Your task to perform on an android device: Add "energizer triple a" to the cart on amazon, then select checkout. Image 0: 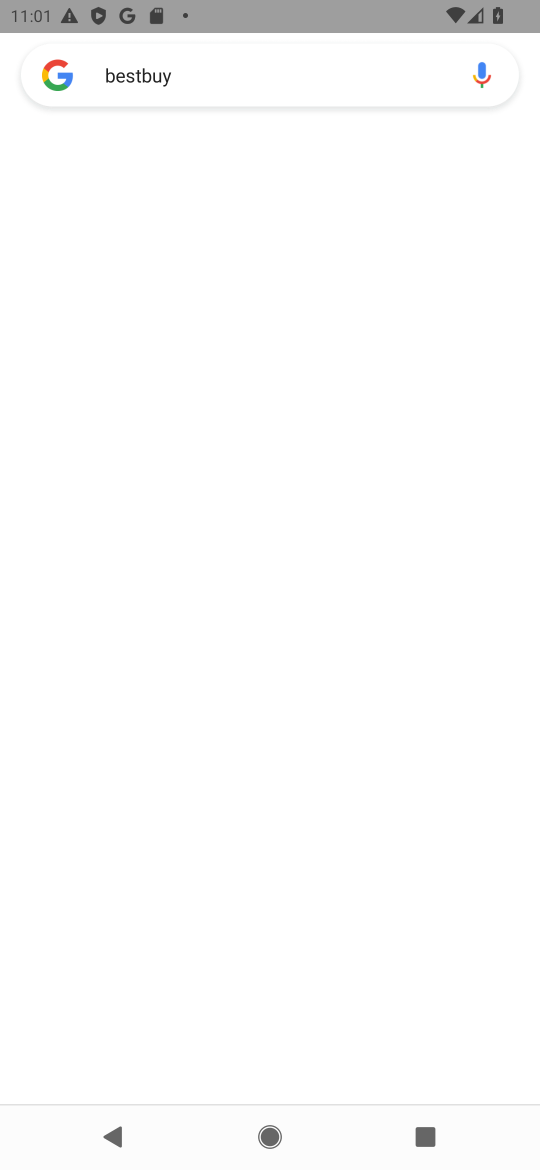
Step 0: press home button
Your task to perform on an android device: Add "energizer triple a" to the cart on amazon, then select checkout. Image 1: 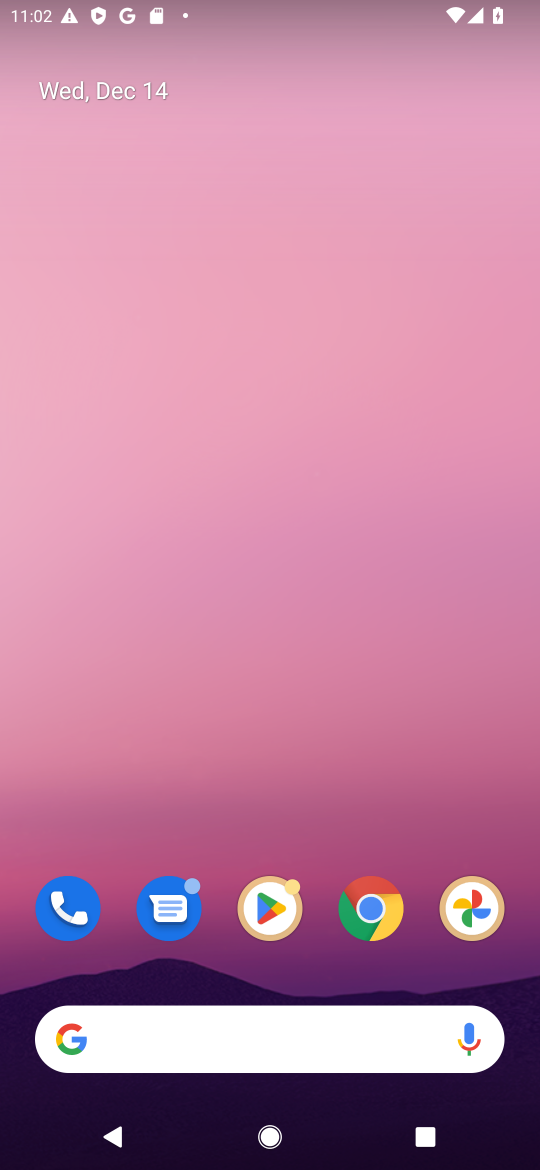
Step 1: click (398, 912)
Your task to perform on an android device: Add "energizer triple a" to the cart on amazon, then select checkout. Image 2: 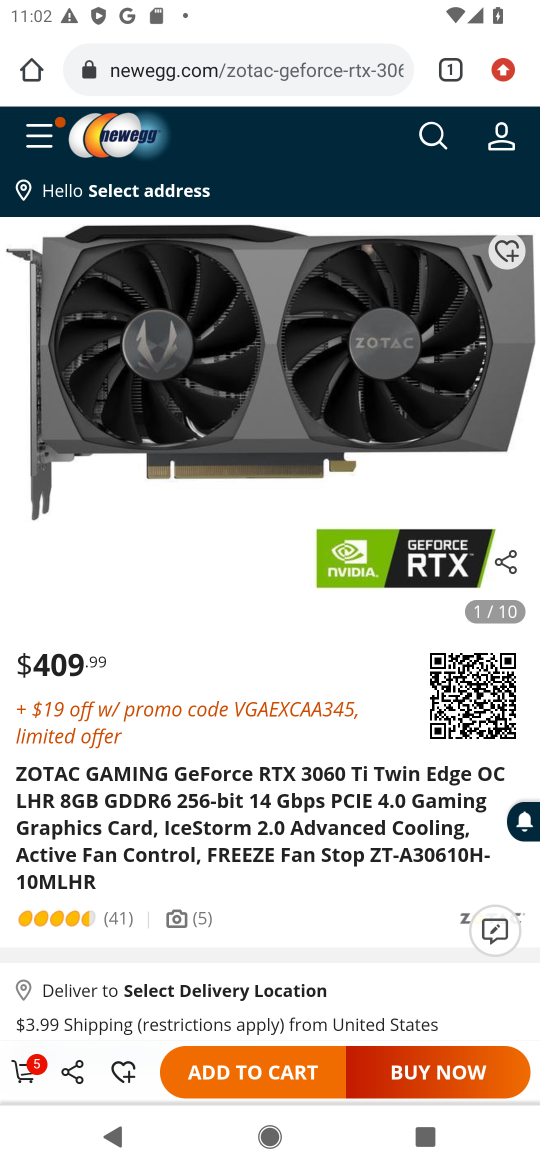
Step 2: click (307, 60)
Your task to perform on an android device: Add "energizer triple a" to the cart on amazon, then select checkout. Image 3: 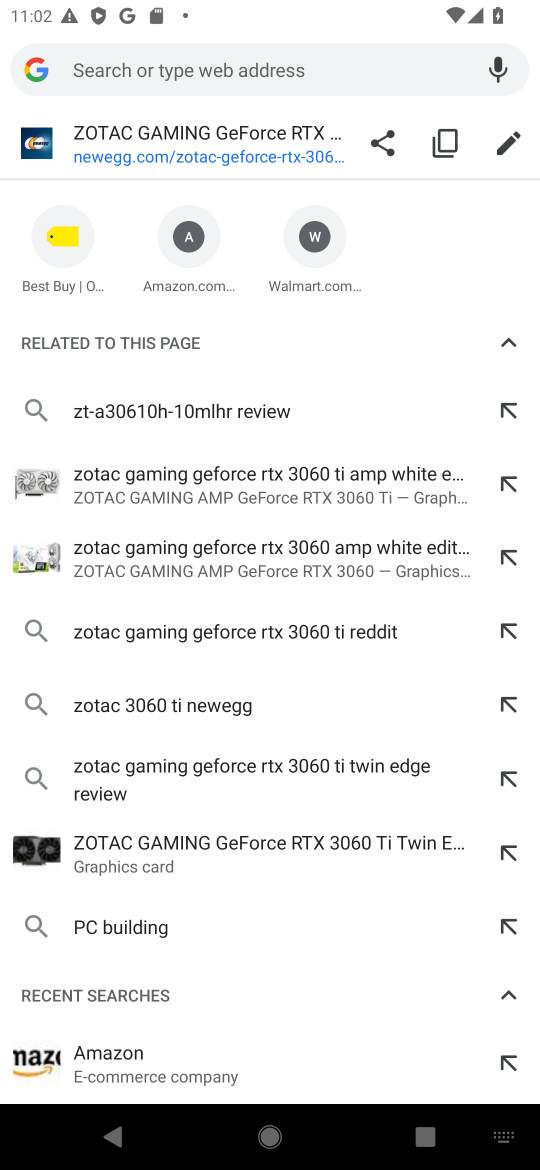
Step 3: type "amazone"
Your task to perform on an android device: Add "energizer triple a" to the cart on amazon, then select checkout. Image 4: 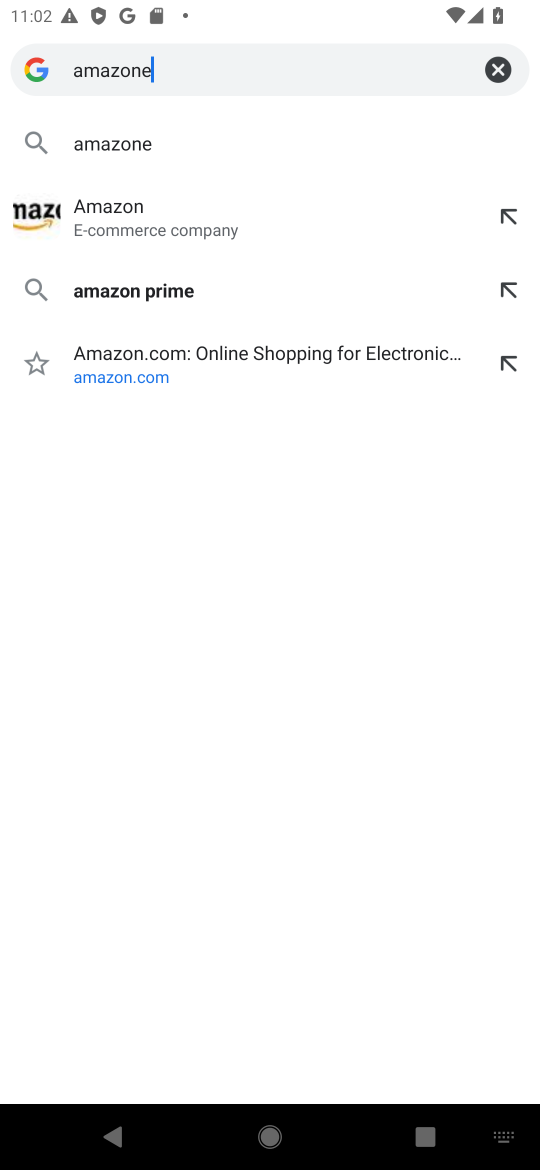
Step 4: click (103, 223)
Your task to perform on an android device: Add "energizer triple a" to the cart on amazon, then select checkout. Image 5: 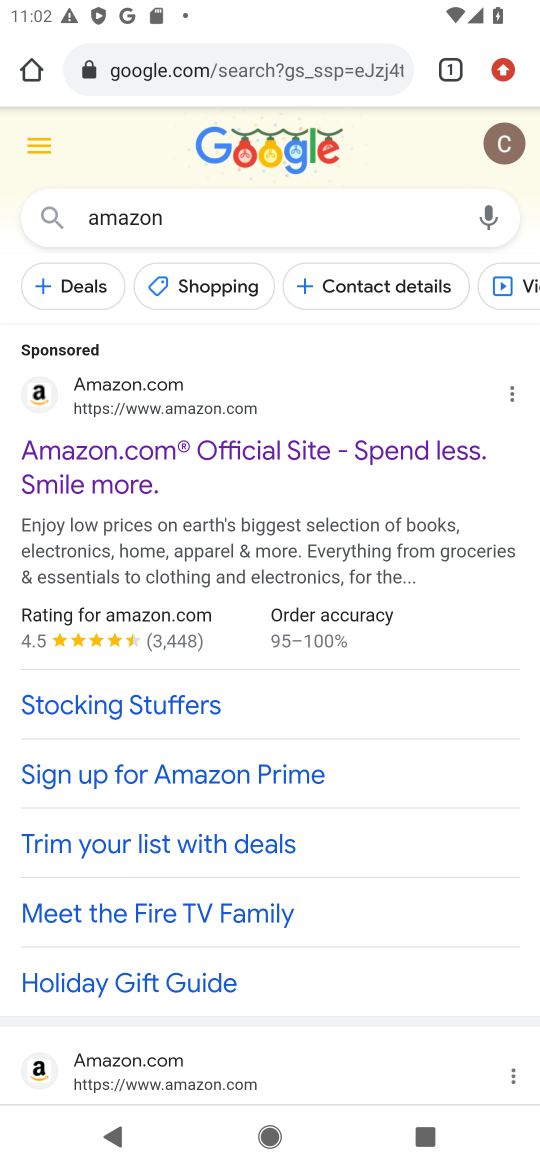
Step 5: click (55, 480)
Your task to perform on an android device: Add "energizer triple a" to the cart on amazon, then select checkout. Image 6: 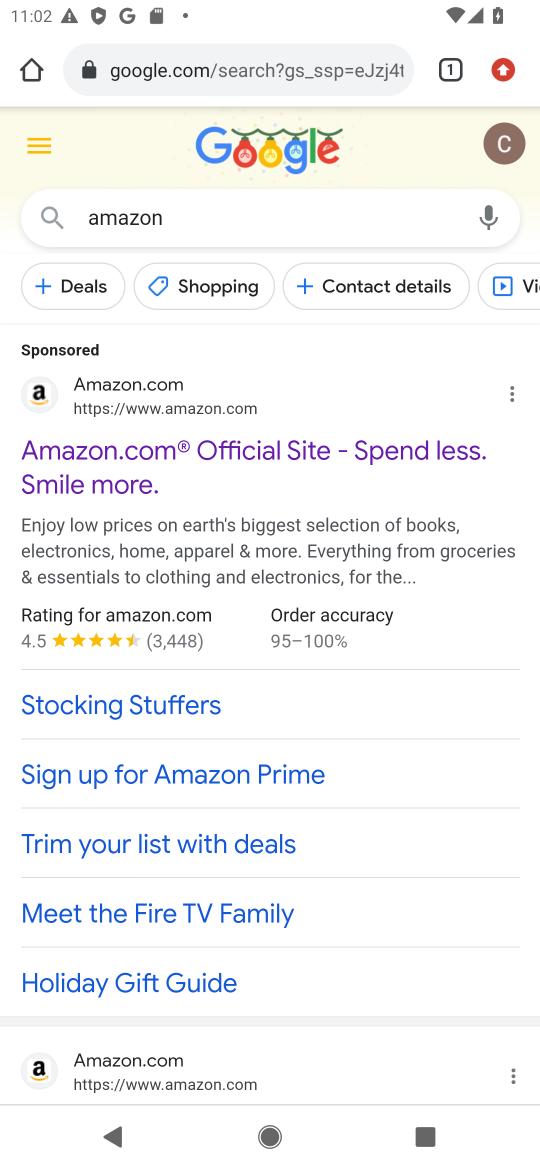
Step 6: click (55, 480)
Your task to perform on an android device: Add "energizer triple a" to the cart on amazon, then select checkout. Image 7: 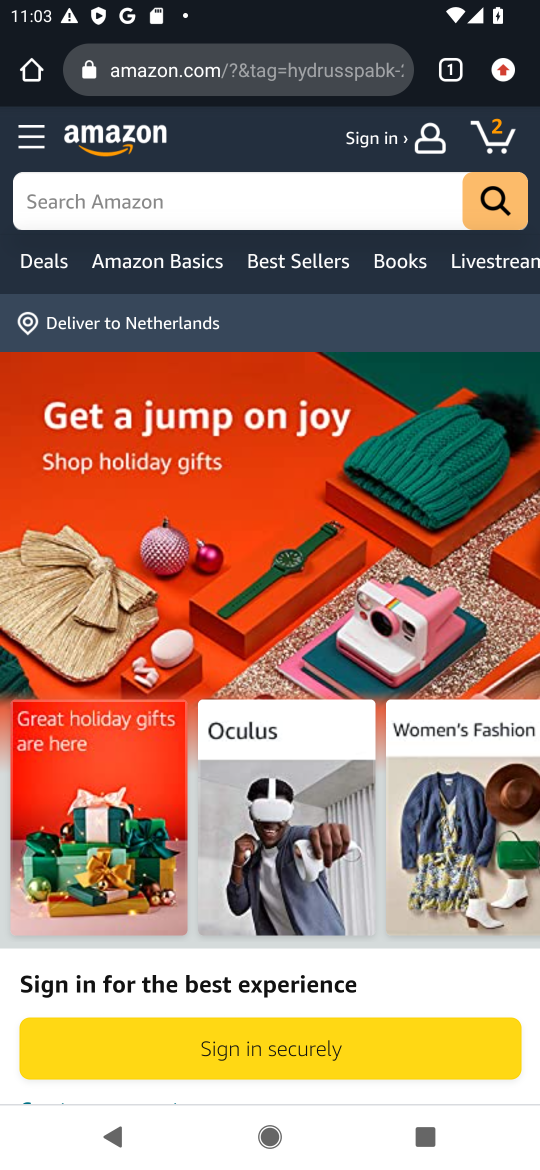
Step 7: click (204, 230)
Your task to perform on an android device: Add "energizer triple a" to the cart on amazon, then select checkout. Image 8: 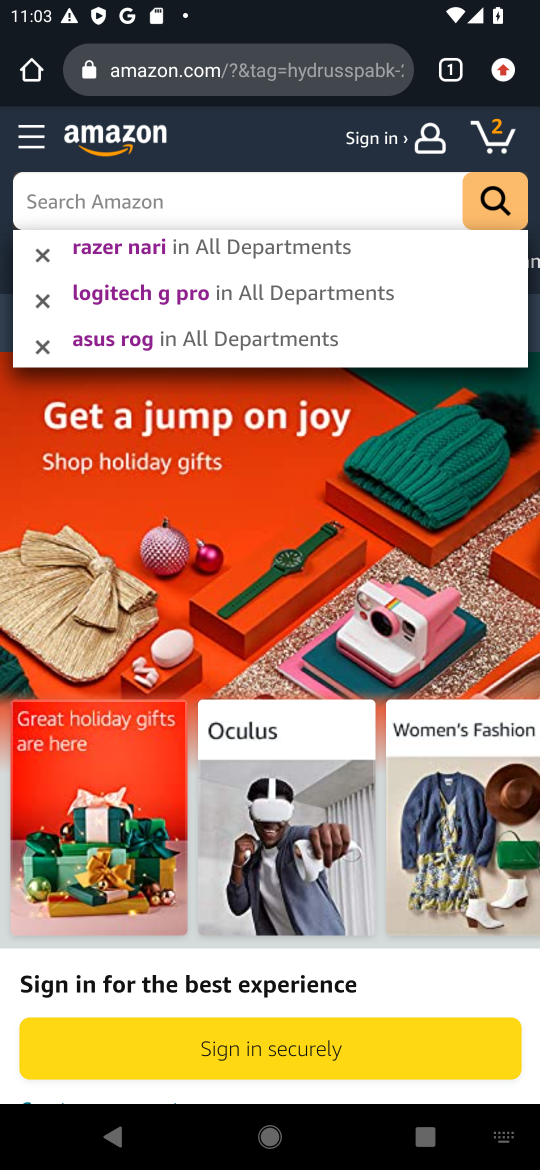
Step 8: click (206, 218)
Your task to perform on an android device: Add "energizer triple a" to the cart on amazon, then select checkout. Image 9: 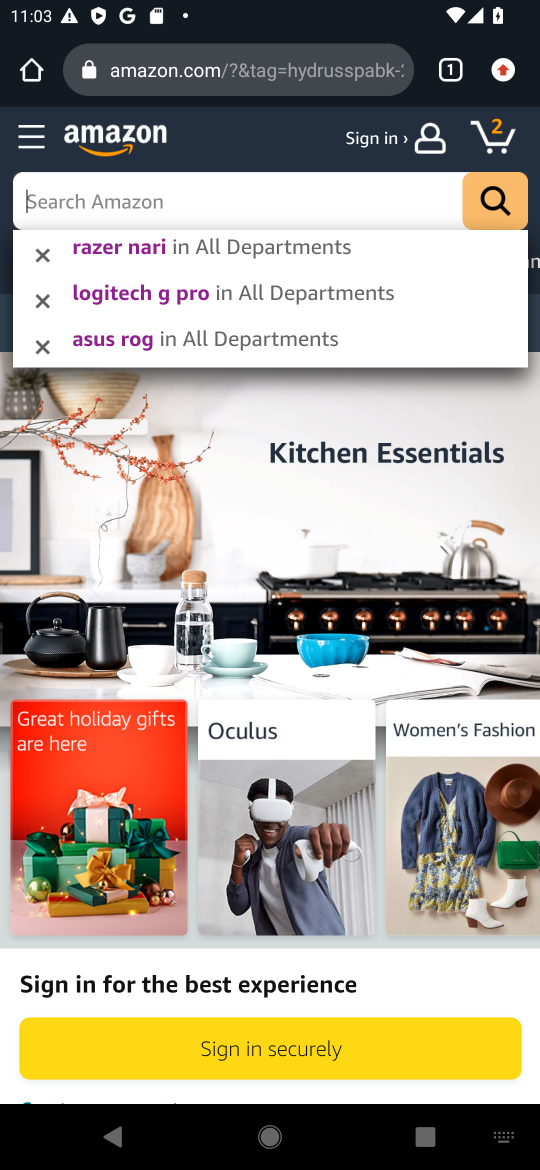
Step 9: type "energizer"
Your task to perform on an android device: Add "energizer triple a" to the cart on amazon, then select checkout. Image 10: 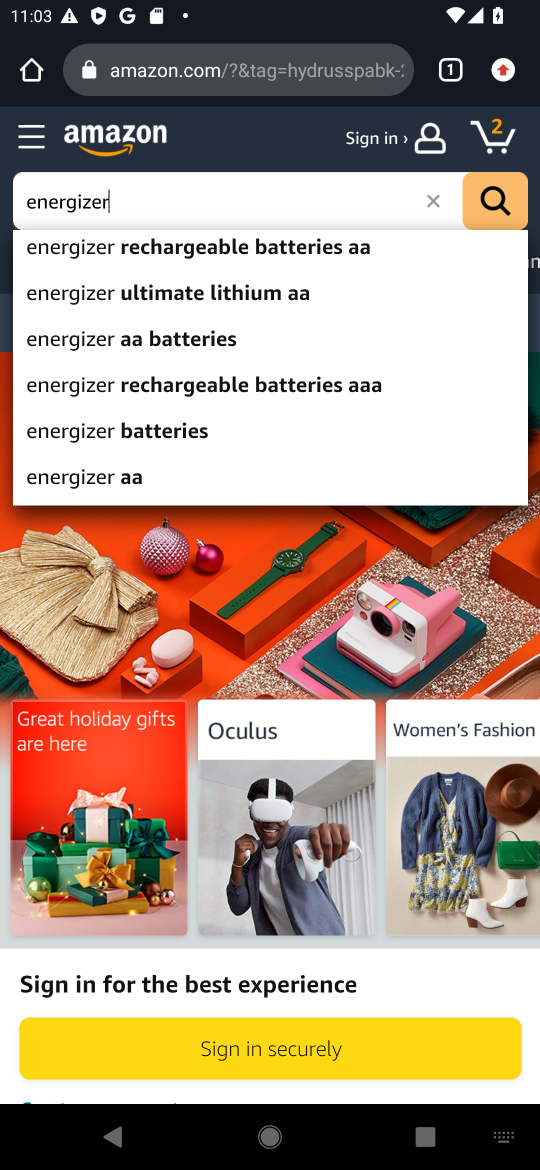
Step 10: type " triple a"
Your task to perform on an android device: Add "energizer triple a" to the cart on amazon, then select checkout. Image 11: 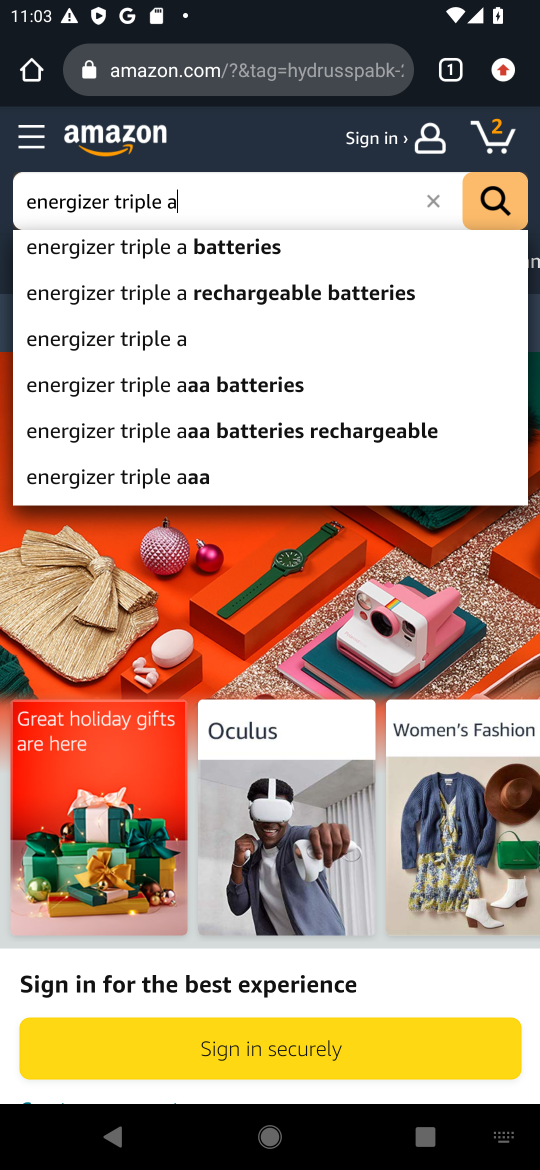
Step 11: click (266, 257)
Your task to perform on an android device: Add "energizer triple a" to the cart on amazon, then select checkout. Image 12: 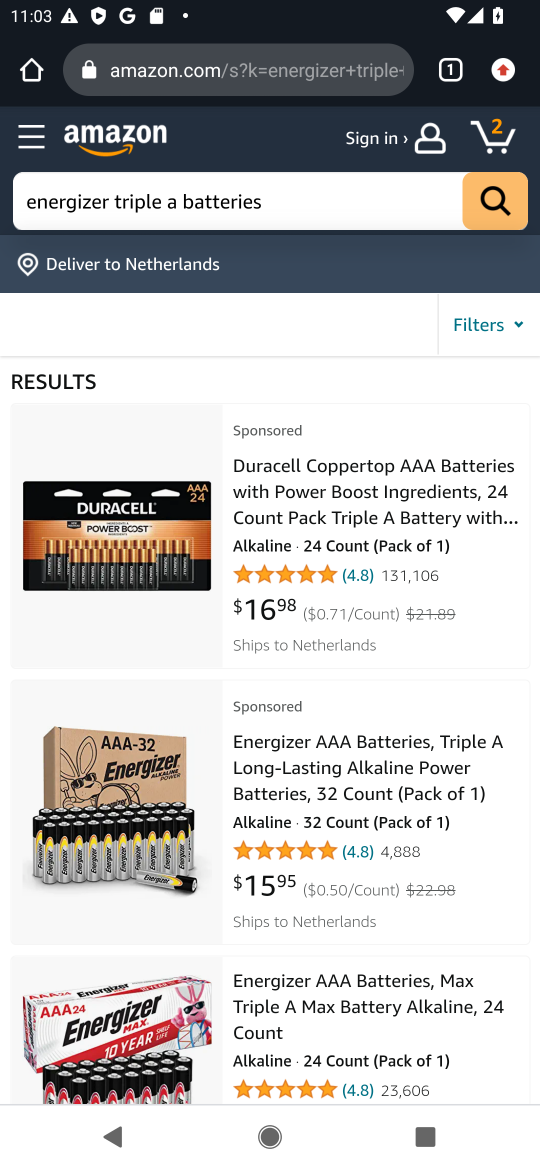
Step 12: click (278, 476)
Your task to perform on an android device: Add "energizer triple a" to the cart on amazon, then select checkout. Image 13: 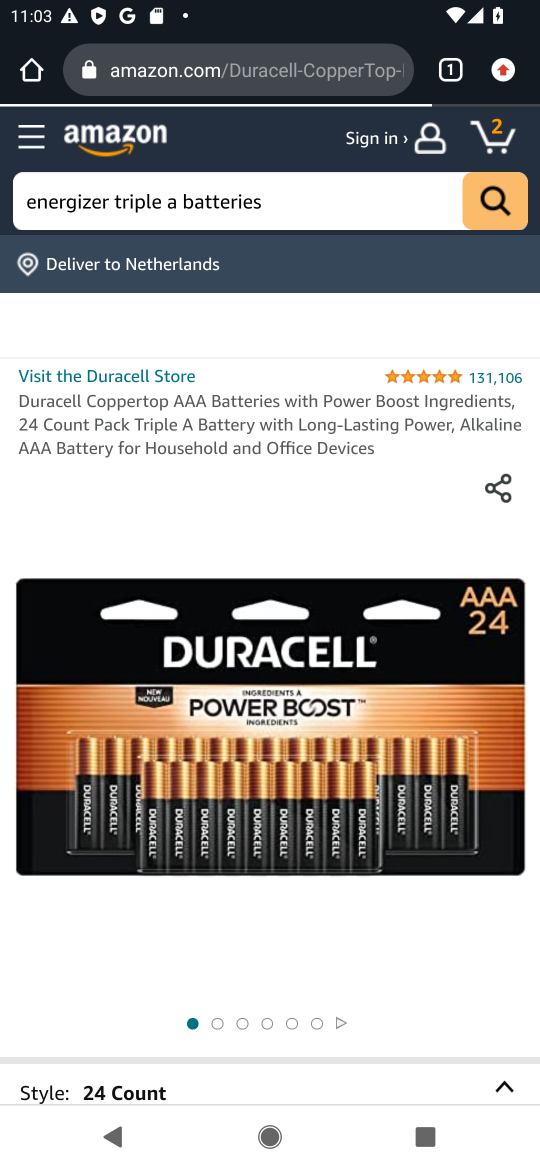
Step 13: drag from (295, 1046) to (295, 73)
Your task to perform on an android device: Add "energizer triple a" to the cart on amazon, then select checkout. Image 14: 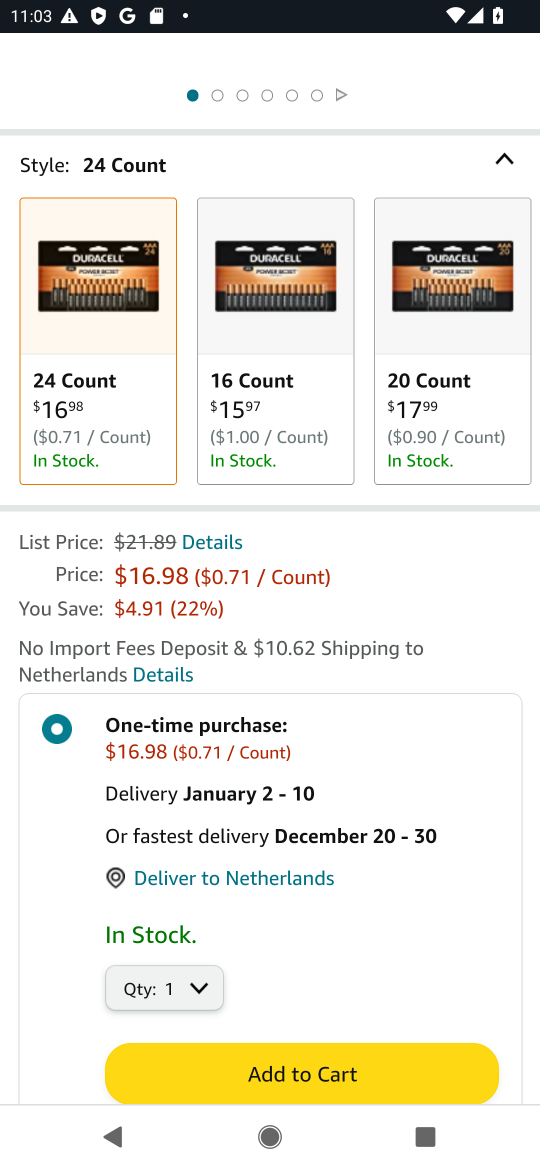
Step 14: click (237, 1063)
Your task to perform on an android device: Add "energizer triple a" to the cart on amazon, then select checkout. Image 15: 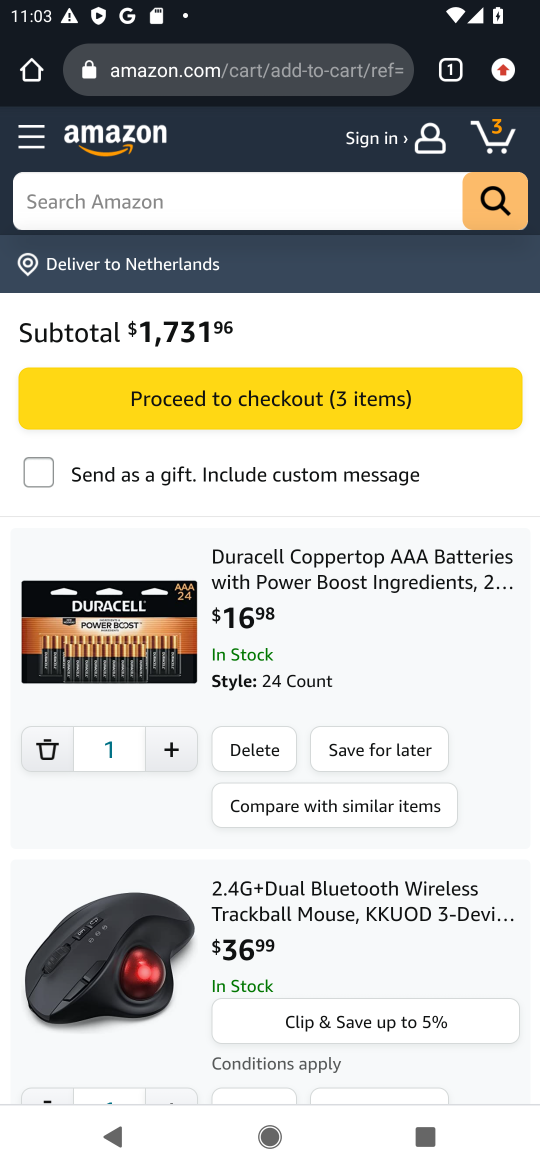
Step 15: task complete